Your task to perform on an android device: Open the web browser Image 0: 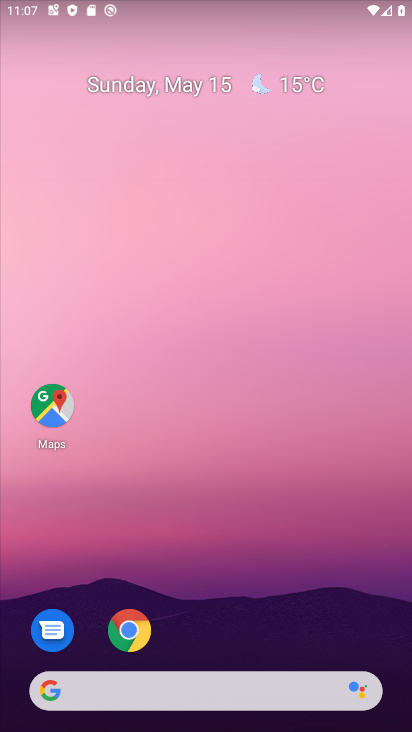
Step 0: click (137, 631)
Your task to perform on an android device: Open the web browser Image 1: 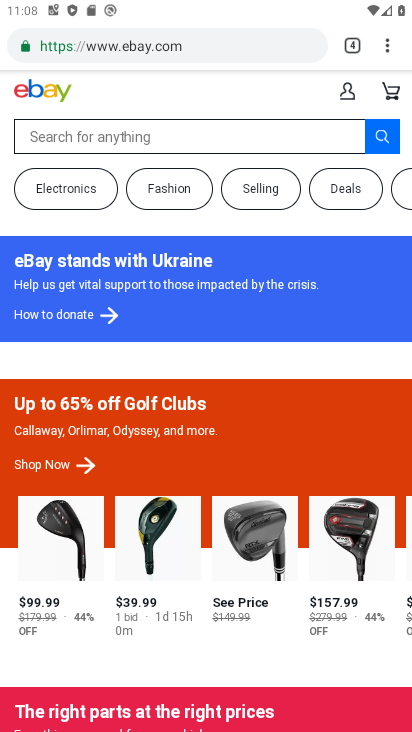
Step 1: task complete